Your task to perform on an android device: create a new album in the google photos Image 0: 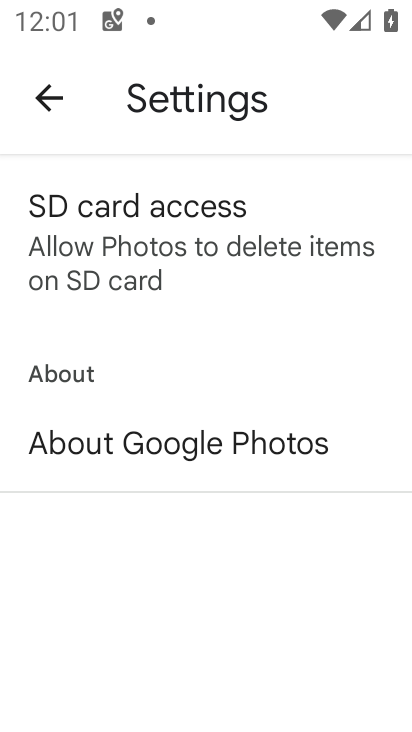
Step 0: press home button
Your task to perform on an android device: create a new album in the google photos Image 1: 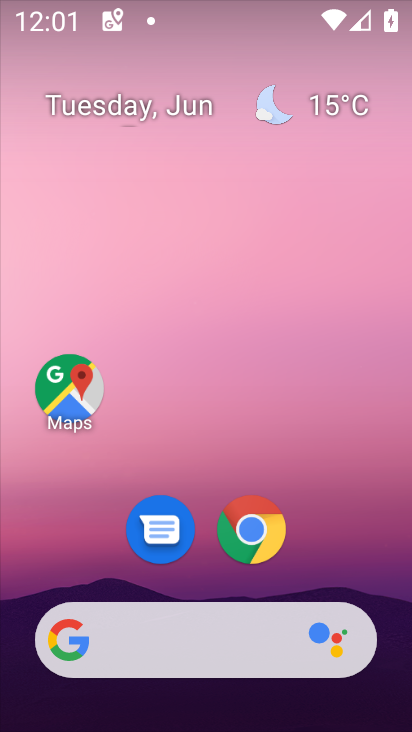
Step 1: drag from (119, 599) to (183, 85)
Your task to perform on an android device: create a new album in the google photos Image 2: 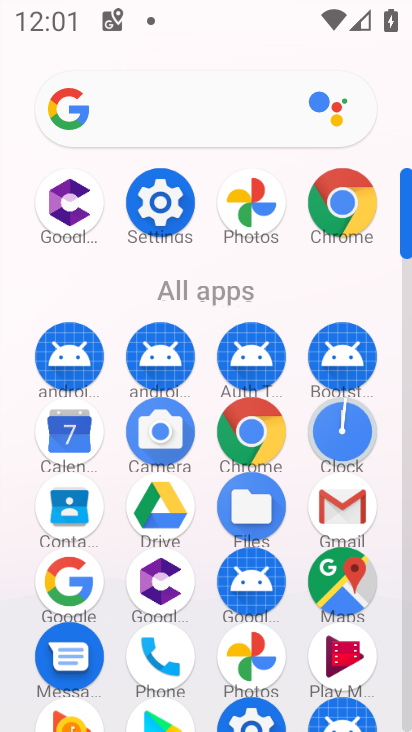
Step 2: click (252, 651)
Your task to perform on an android device: create a new album in the google photos Image 3: 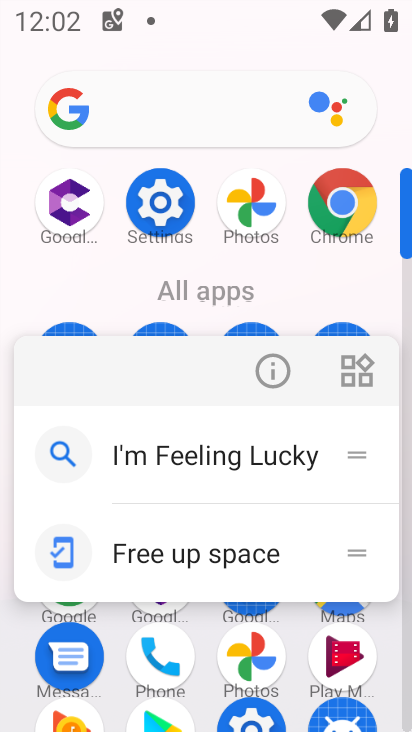
Step 3: click (254, 651)
Your task to perform on an android device: create a new album in the google photos Image 4: 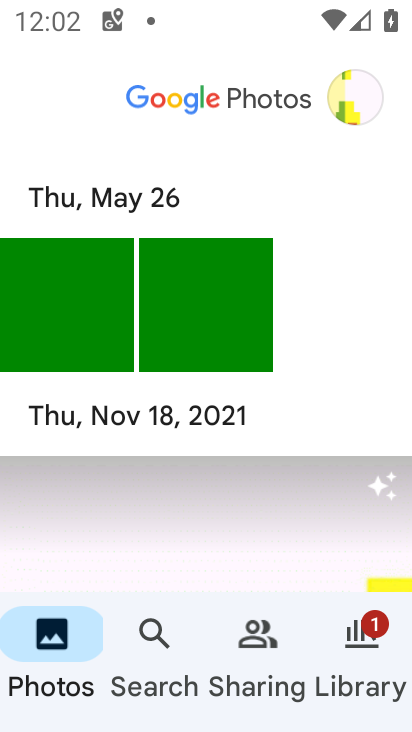
Step 4: click (108, 350)
Your task to perform on an android device: create a new album in the google photos Image 5: 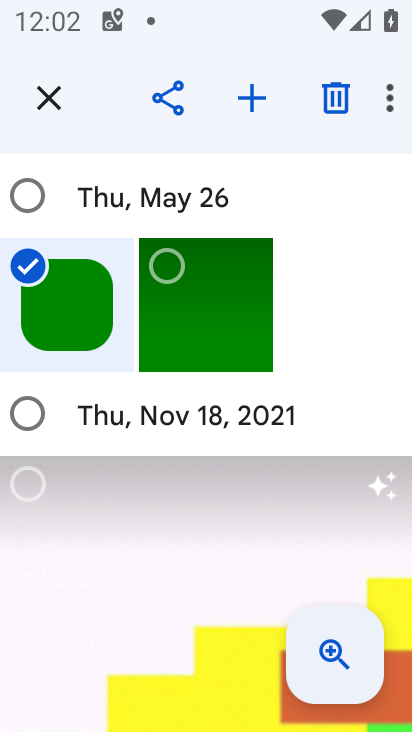
Step 5: click (229, 347)
Your task to perform on an android device: create a new album in the google photos Image 6: 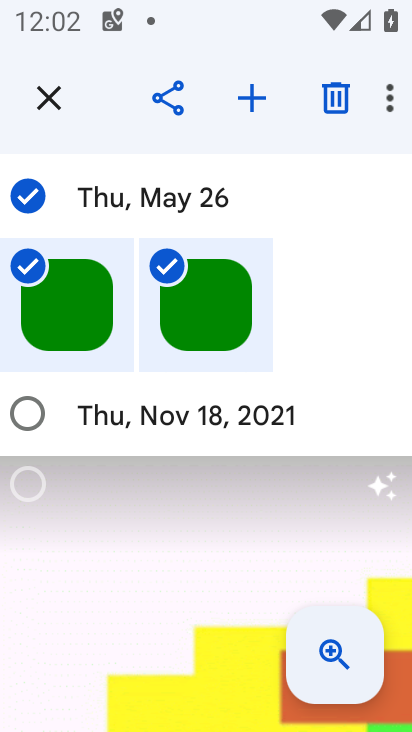
Step 6: click (25, 416)
Your task to perform on an android device: create a new album in the google photos Image 7: 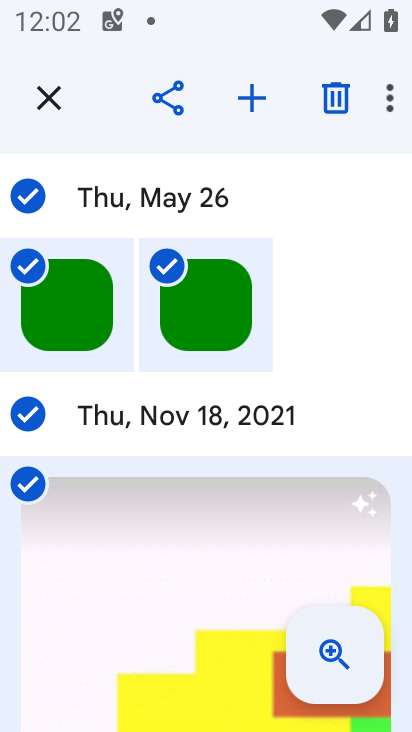
Step 7: click (264, 109)
Your task to perform on an android device: create a new album in the google photos Image 8: 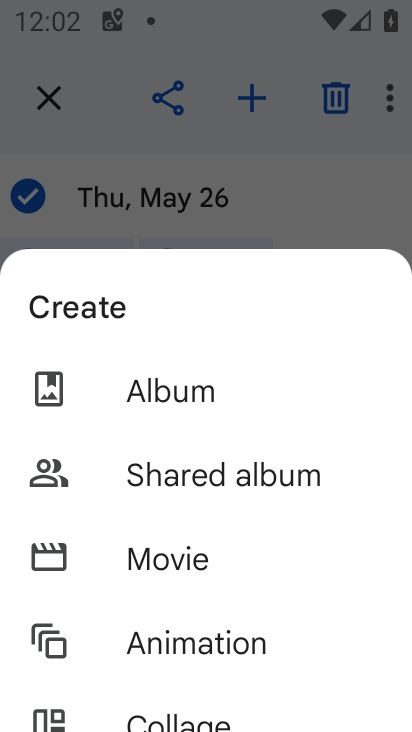
Step 8: click (220, 403)
Your task to perform on an android device: create a new album in the google photos Image 9: 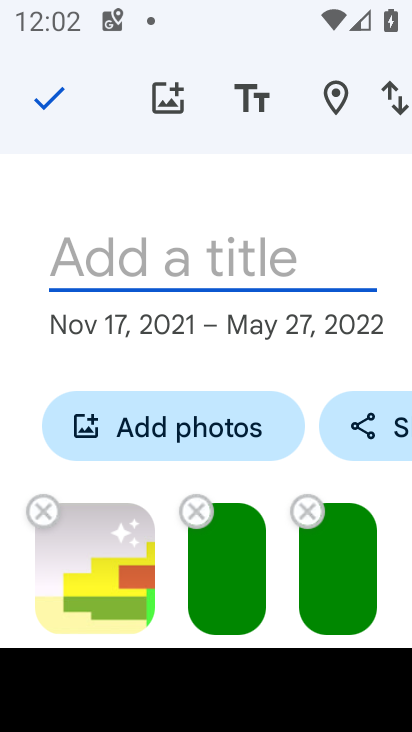
Step 9: type "xx"
Your task to perform on an android device: create a new album in the google photos Image 10: 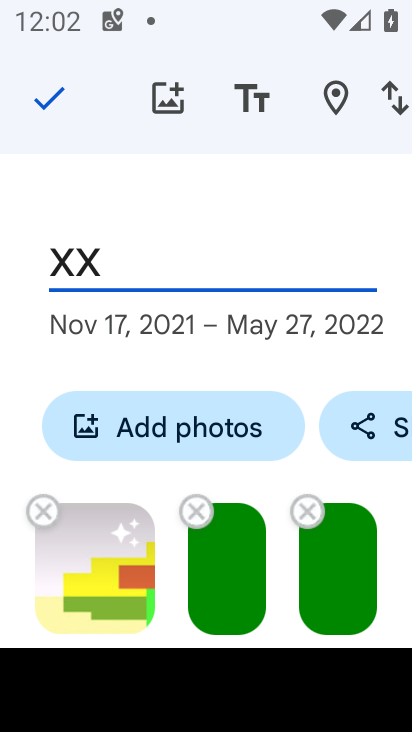
Step 10: click (52, 108)
Your task to perform on an android device: create a new album in the google photos Image 11: 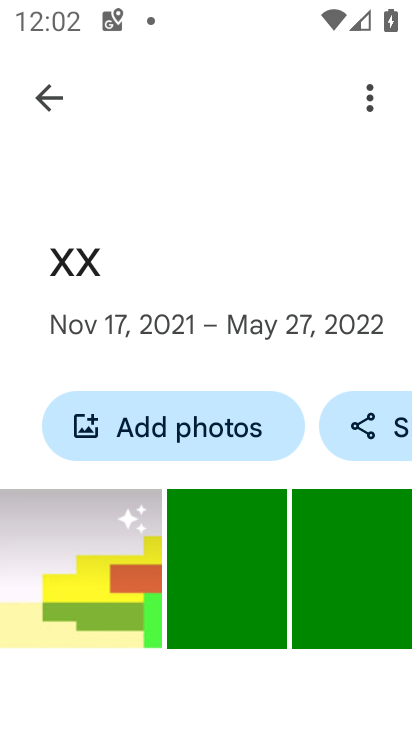
Step 11: task complete